Your task to perform on an android device: Show me the alarms in the clock app Image 0: 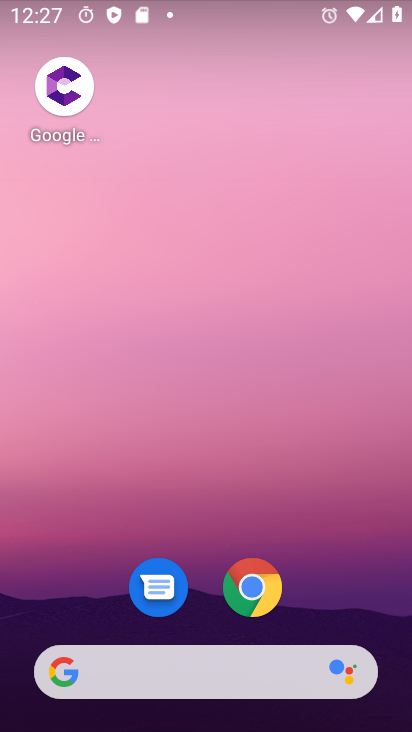
Step 0: drag from (349, 572) to (408, 72)
Your task to perform on an android device: Show me the alarms in the clock app Image 1: 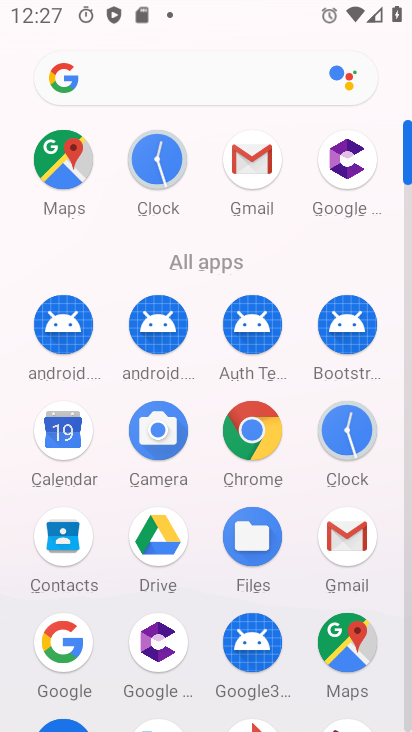
Step 1: click (352, 432)
Your task to perform on an android device: Show me the alarms in the clock app Image 2: 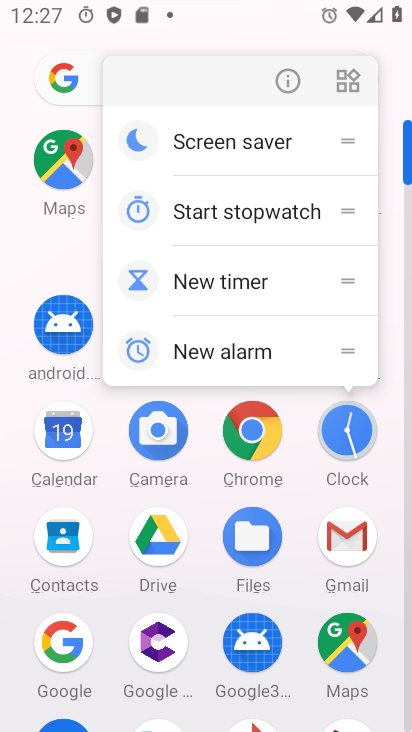
Step 2: click (352, 448)
Your task to perform on an android device: Show me the alarms in the clock app Image 3: 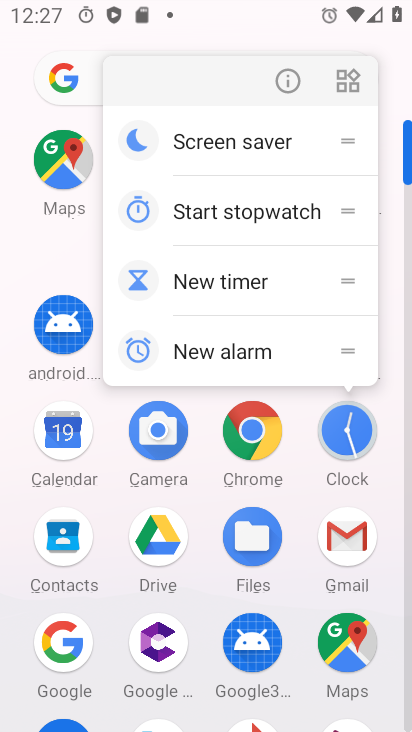
Step 3: click (352, 448)
Your task to perform on an android device: Show me the alarms in the clock app Image 4: 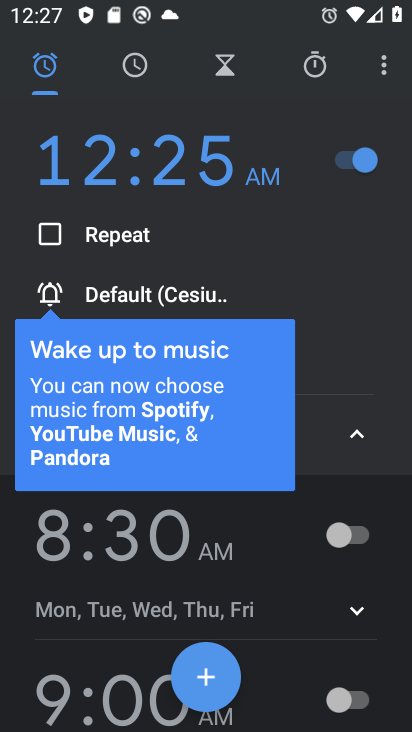
Step 4: task complete